Your task to perform on an android device: change the clock display to digital Image 0: 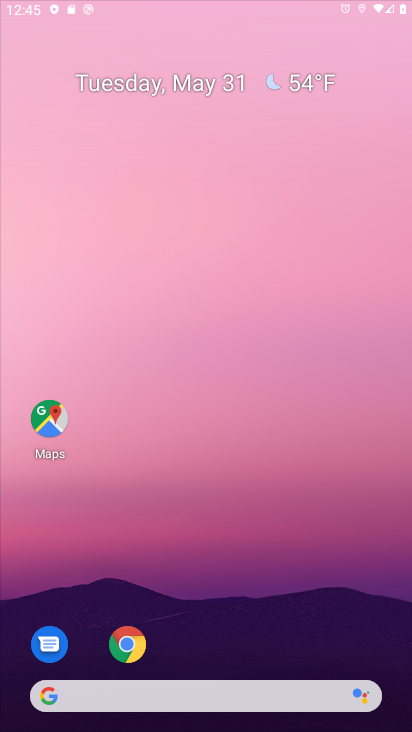
Step 0: press home button
Your task to perform on an android device: change the clock display to digital Image 1: 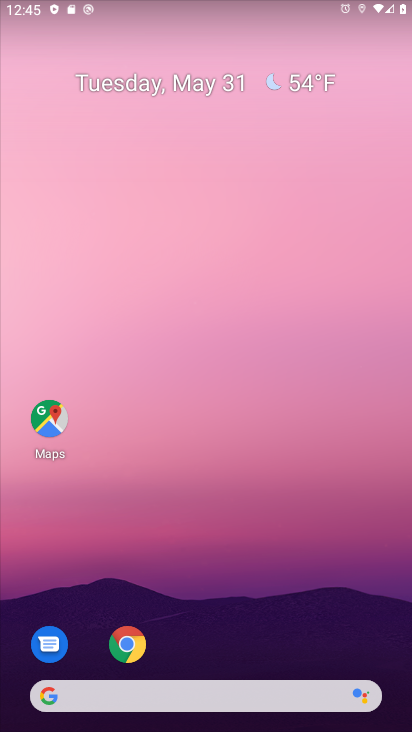
Step 1: drag from (250, 649) to (246, 233)
Your task to perform on an android device: change the clock display to digital Image 2: 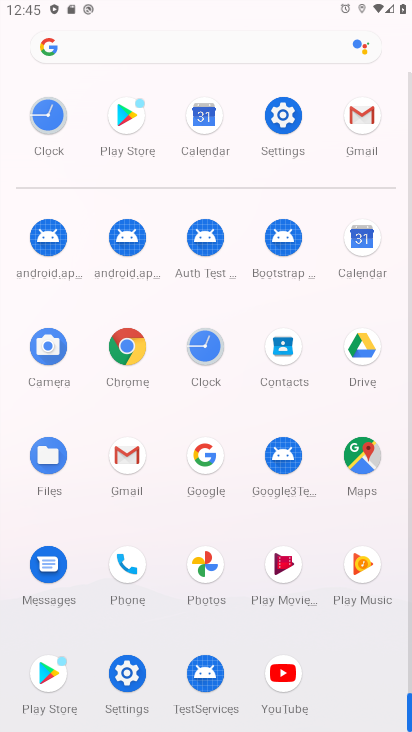
Step 2: click (207, 358)
Your task to perform on an android device: change the clock display to digital Image 3: 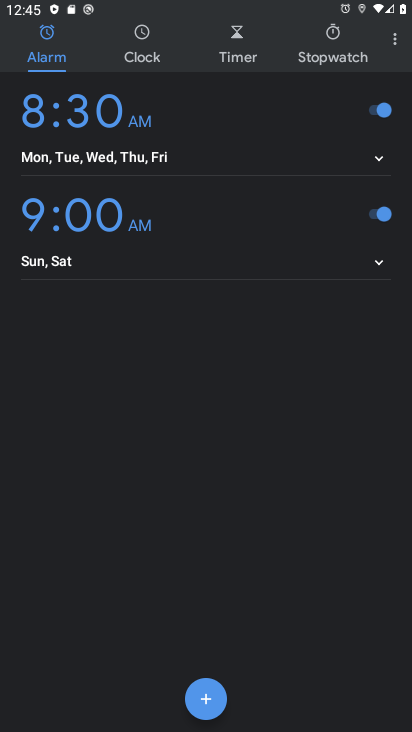
Step 3: click (398, 46)
Your task to perform on an android device: change the clock display to digital Image 4: 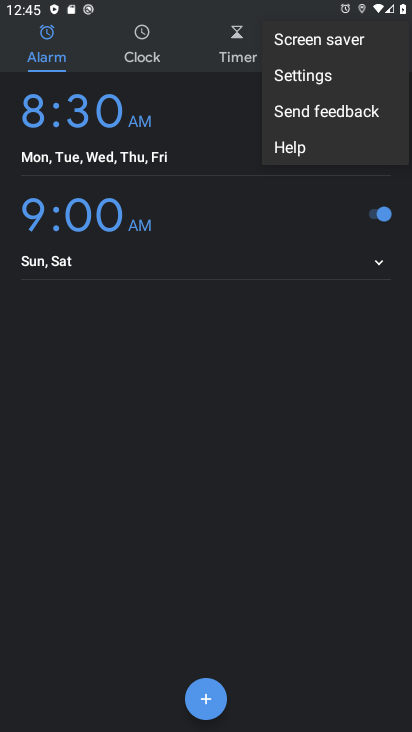
Step 4: click (337, 74)
Your task to perform on an android device: change the clock display to digital Image 5: 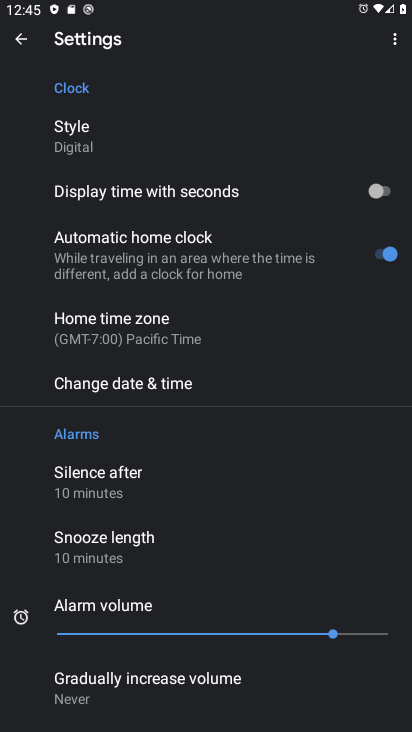
Step 5: click (72, 147)
Your task to perform on an android device: change the clock display to digital Image 6: 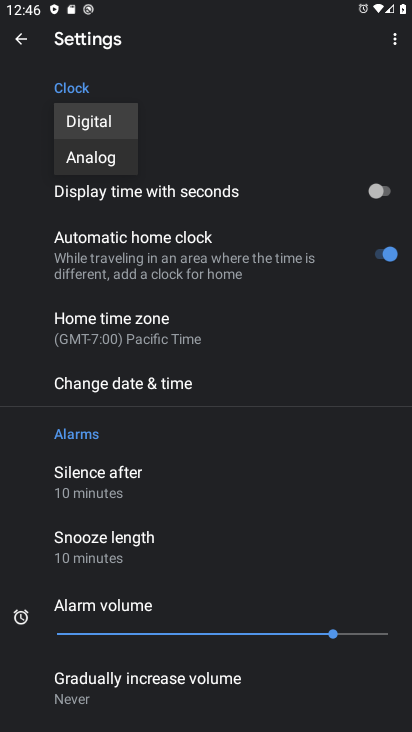
Step 6: task complete